Your task to perform on an android device: Do I have any events this weekend? Image 0: 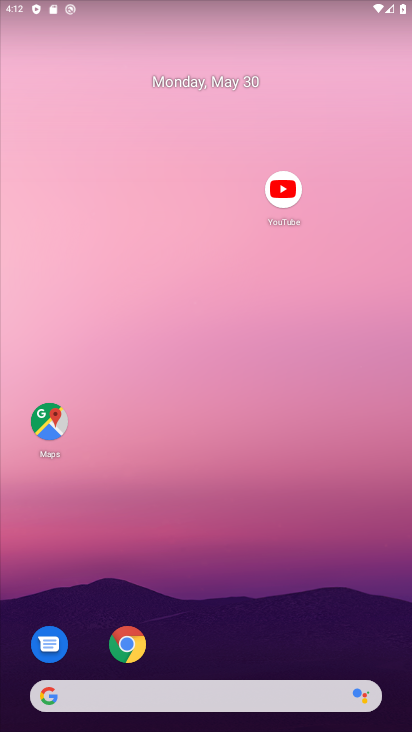
Step 0: click (178, 74)
Your task to perform on an android device: Do I have any events this weekend? Image 1: 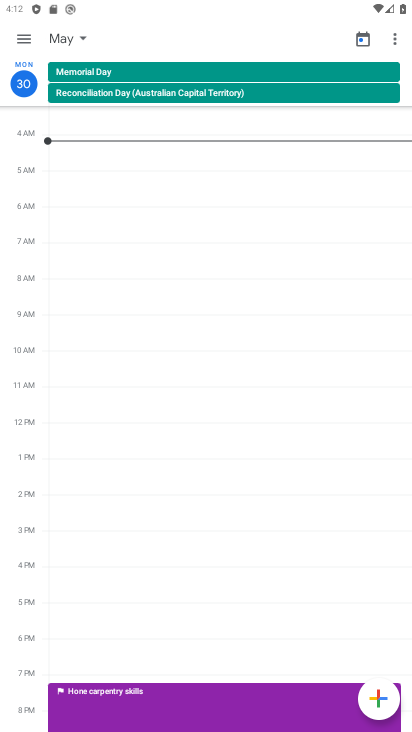
Step 1: click (64, 43)
Your task to perform on an android device: Do I have any events this weekend? Image 2: 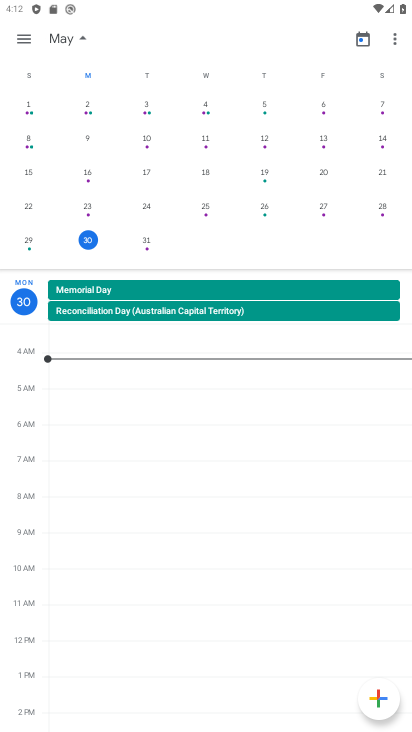
Step 2: drag from (403, 224) to (209, 220)
Your task to perform on an android device: Do I have any events this weekend? Image 3: 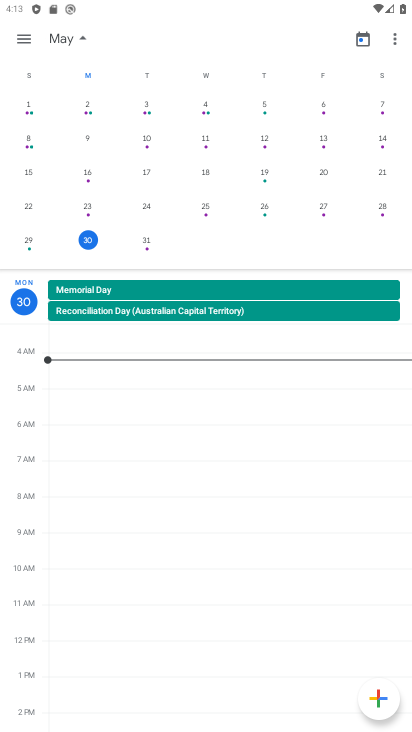
Step 3: drag from (318, 242) to (11, 212)
Your task to perform on an android device: Do I have any events this weekend? Image 4: 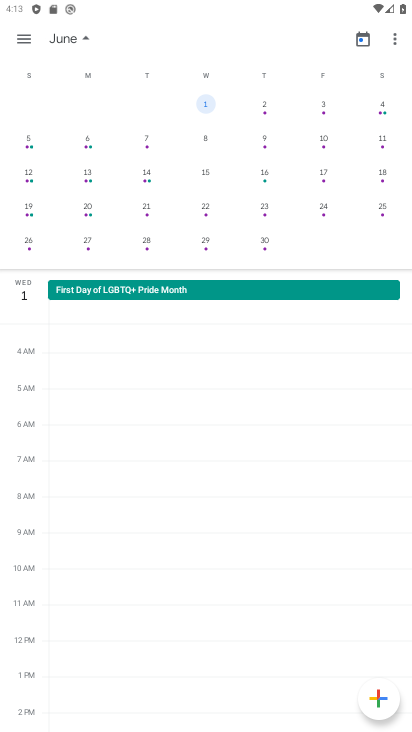
Step 4: click (389, 108)
Your task to perform on an android device: Do I have any events this weekend? Image 5: 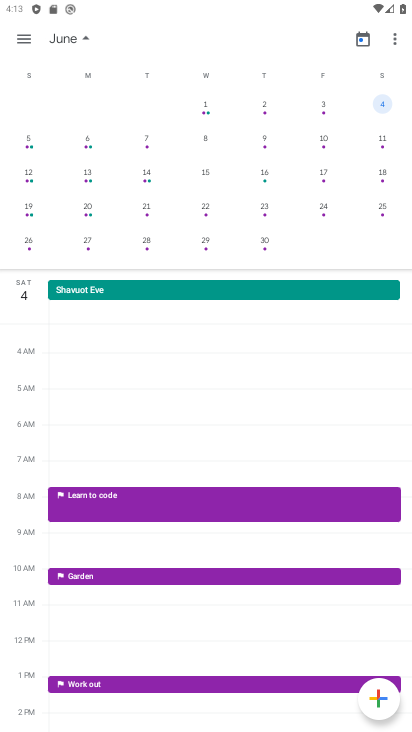
Step 5: task complete